Your task to perform on an android device: turn on javascript in the chrome app Image 0: 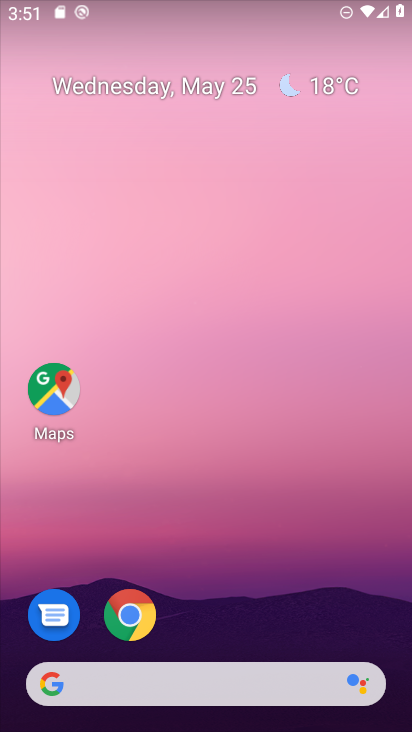
Step 0: click (132, 607)
Your task to perform on an android device: turn on javascript in the chrome app Image 1: 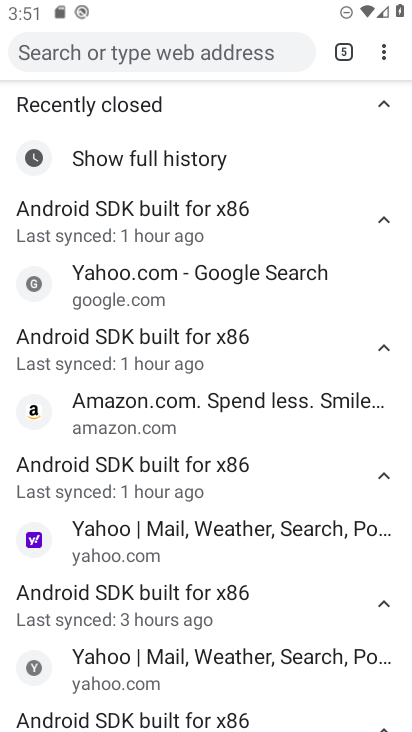
Step 1: click (379, 48)
Your task to perform on an android device: turn on javascript in the chrome app Image 2: 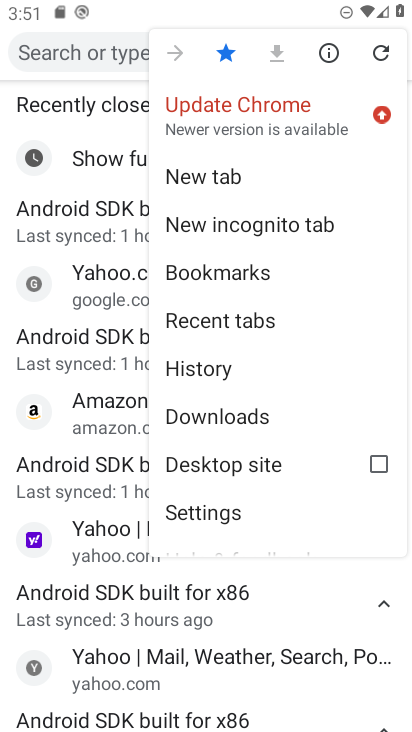
Step 2: click (259, 515)
Your task to perform on an android device: turn on javascript in the chrome app Image 3: 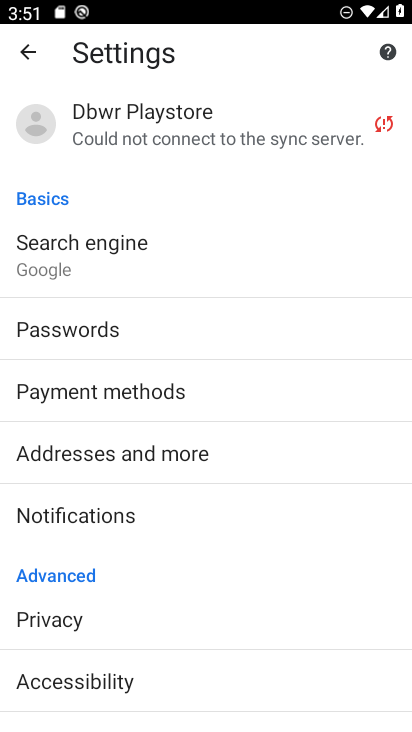
Step 3: drag from (259, 513) to (322, 262)
Your task to perform on an android device: turn on javascript in the chrome app Image 4: 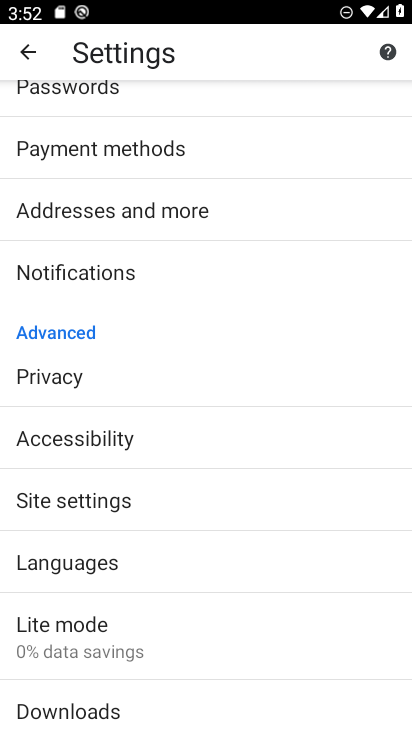
Step 4: click (173, 502)
Your task to perform on an android device: turn on javascript in the chrome app Image 5: 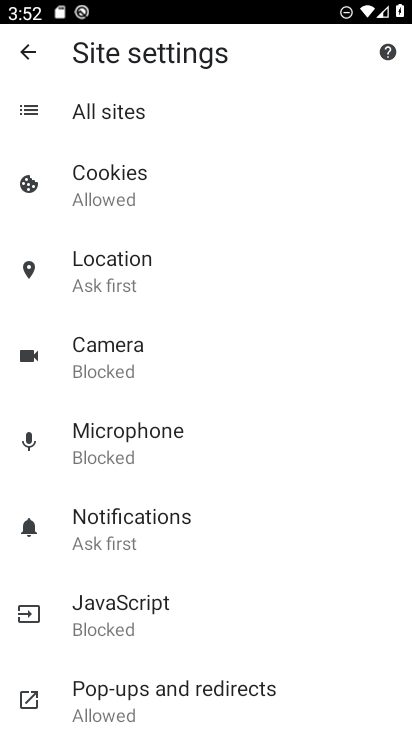
Step 5: click (165, 615)
Your task to perform on an android device: turn on javascript in the chrome app Image 6: 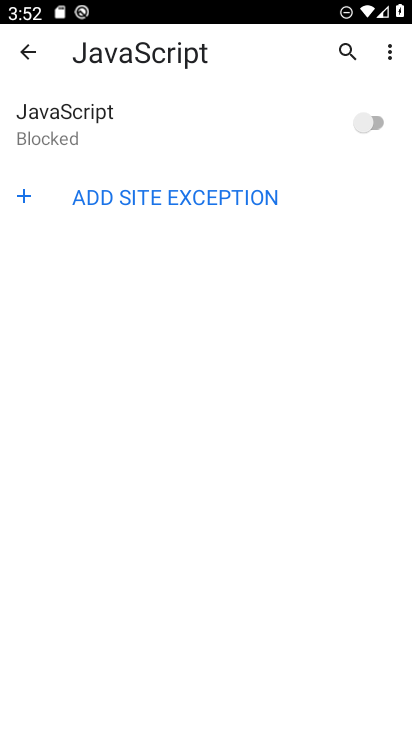
Step 6: click (373, 117)
Your task to perform on an android device: turn on javascript in the chrome app Image 7: 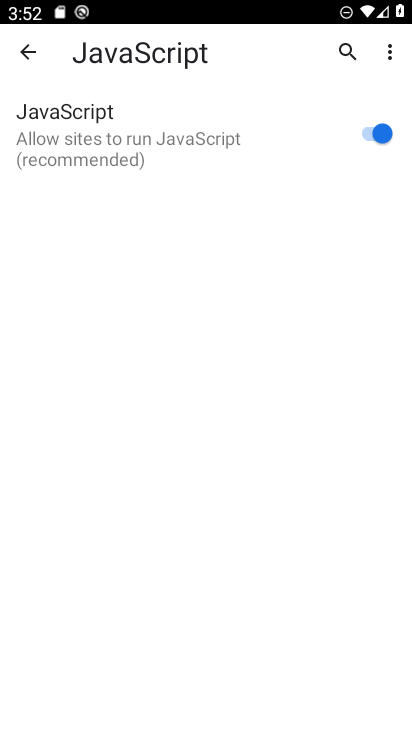
Step 7: task complete